Your task to perform on an android device: toggle notification dots Image 0: 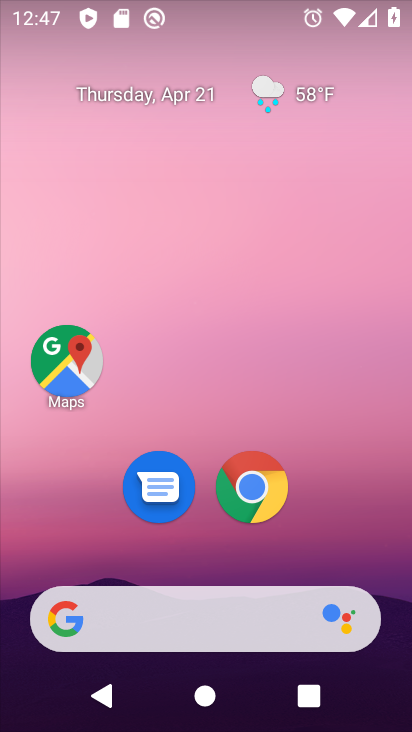
Step 0: drag from (367, 525) to (371, 1)
Your task to perform on an android device: toggle notification dots Image 1: 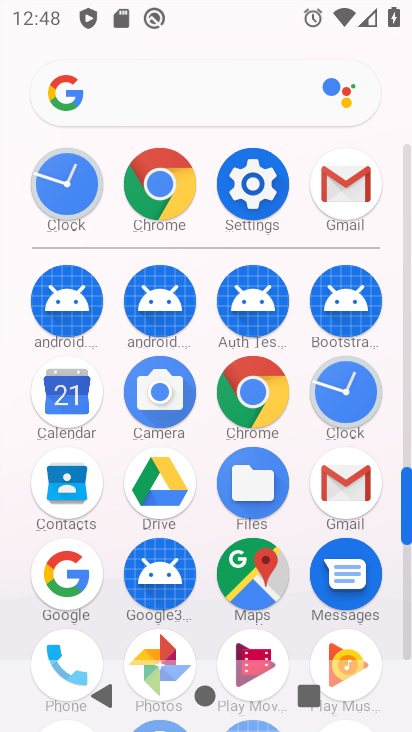
Step 1: click (250, 194)
Your task to perform on an android device: toggle notification dots Image 2: 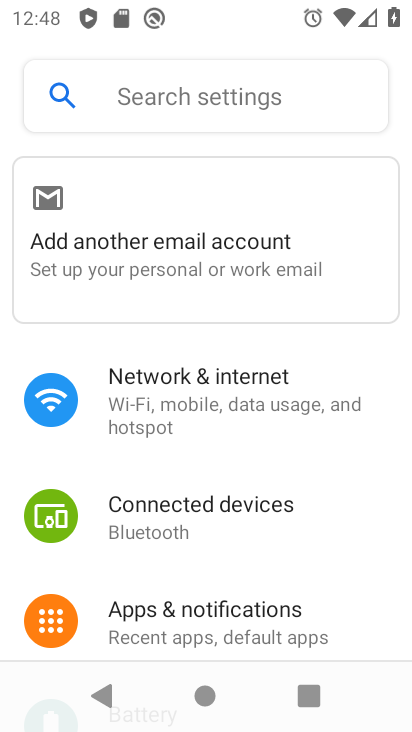
Step 2: click (188, 610)
Your task to perform on an android device: toggle notification dots Image 3: 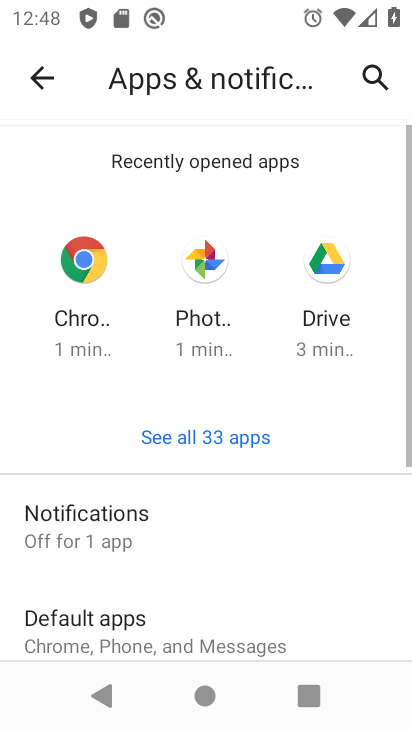
Step 3: click (73, 536)
Your task to perform on an android device: toggle notification dots Image 4: 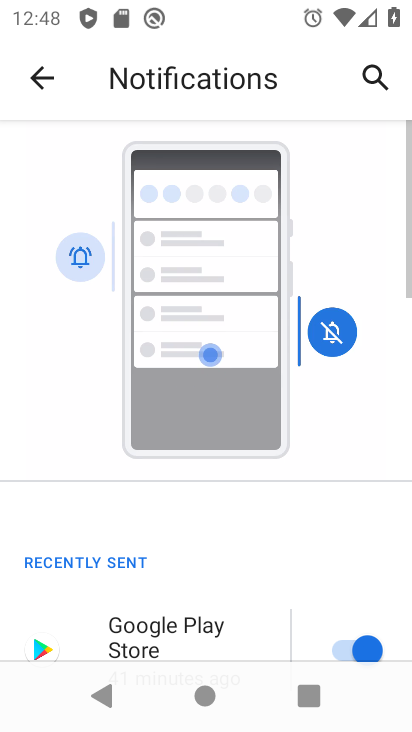
Step 4: drag from (334, 564) to (310, 166)
Your task to perform on an android device: toggle notification dots Image 5: 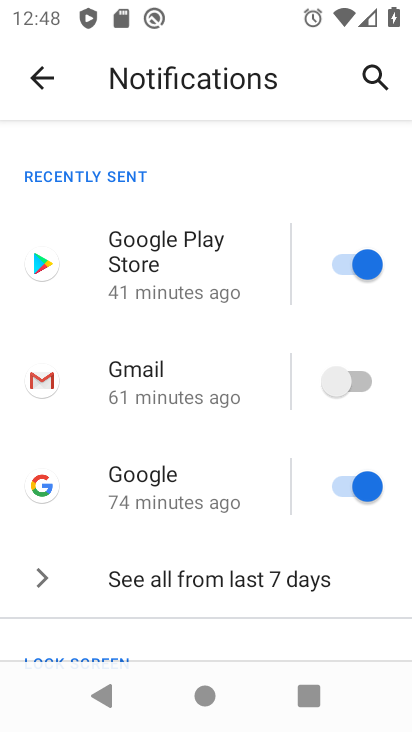
Step 5: drag from (202, 529) to (201, 264)
Your task to perform on an android device: toggle notification dots Image 6: 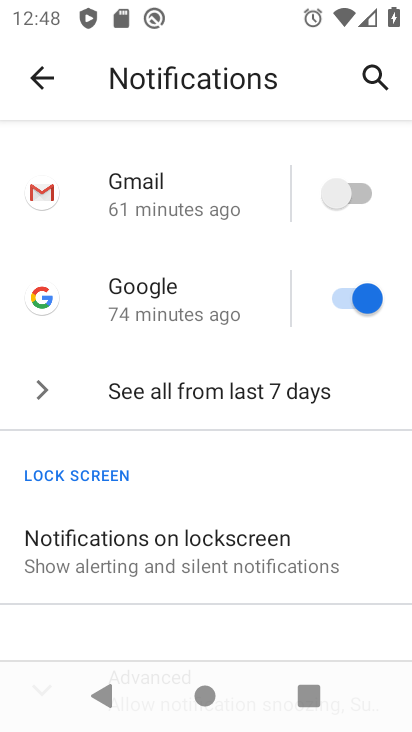
Step 6: drag from (167, 499) to (179, 202)
Your task to perform on an android device: toggle notification dots Image 7: 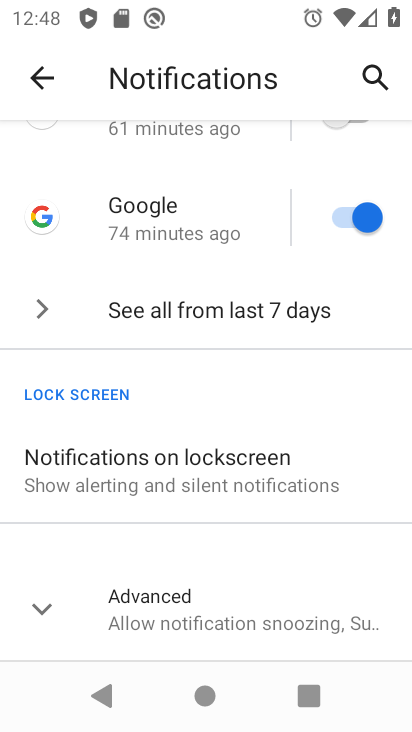
Step 7: click (40, 617)
Your task to perform on an android device: toggle notification dots Image 8: 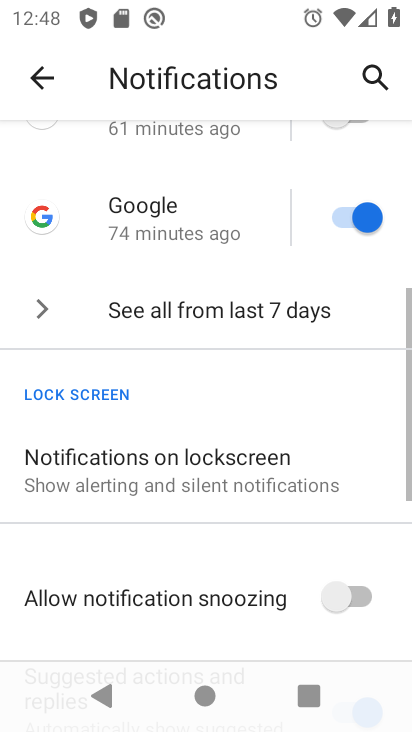
Step 8: drag from (149, 630) to (165, 399)
Your task to perform on an android device: toggle notification dots Image 9: 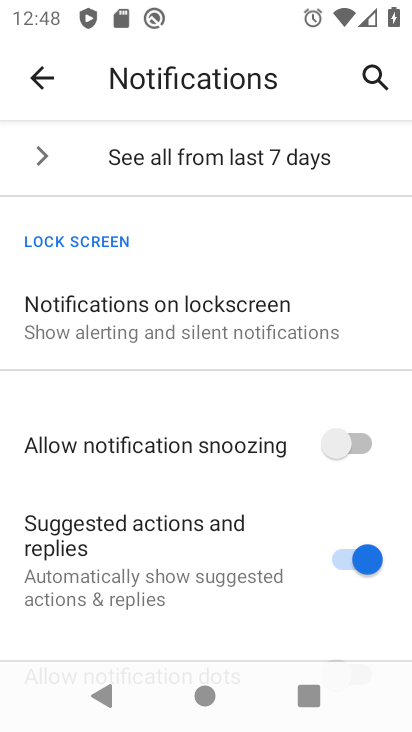
Step 9: drag from (196, 357) to (196, 225)
Your task to perform on an android device: toggle notification dots Image 10: 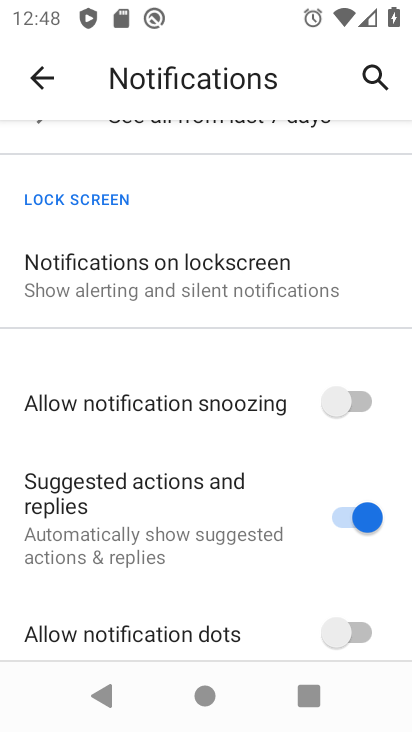
Step 10: drag from (173, 494) to (194, 262)
Your task to perform on an android device: toggle notification dots Image 11: 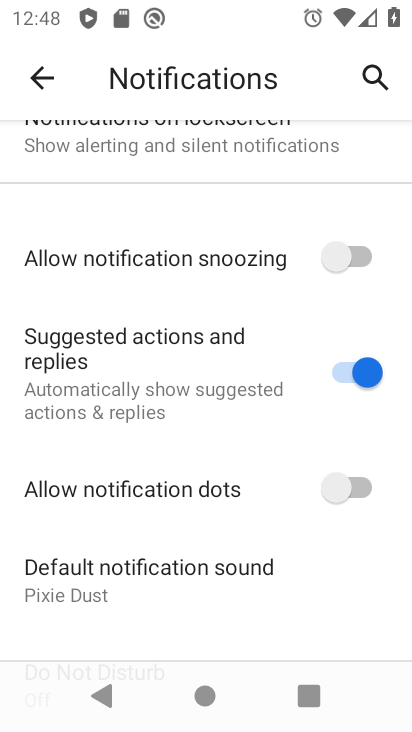
Step 11: click (337, 492)
Your task to perform on an android device: toggle notification dots Image 12: 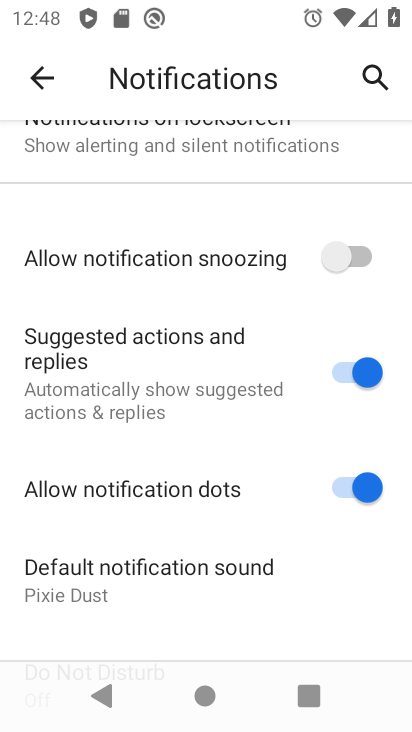
Step 12: task complete